Your task to perform on an android device: change the upload size in google photos Image 0: 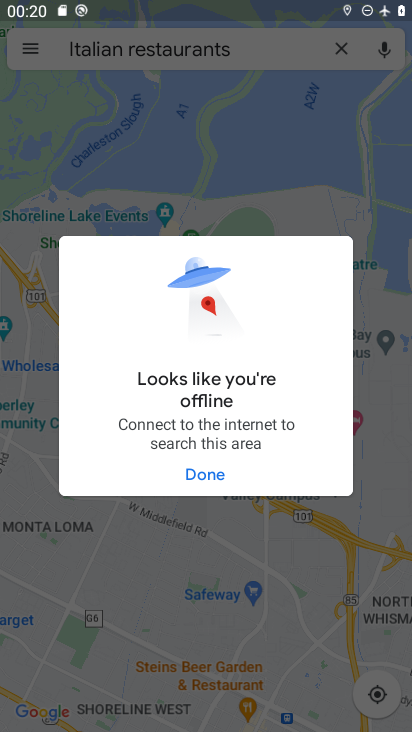
Step 0: press home button
Your task to perform on an android device: change the upload size in google photos Image 1: 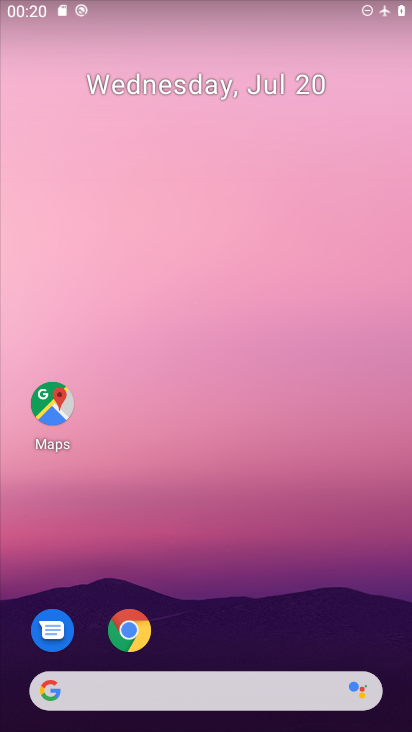
Step 1: drag from (216, 621) to (171, 53)
Your task to perform on an android device: change the upload size in google photos Image 2: 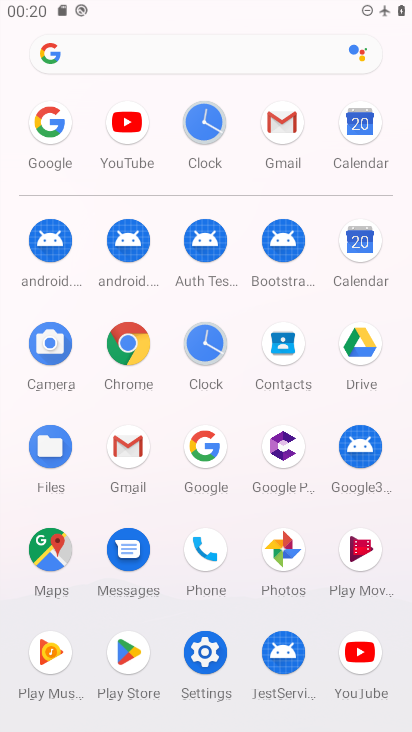
Step 2: click (278, 559)
Your task to perform on an android device: change the upload size in google photos Image 3: 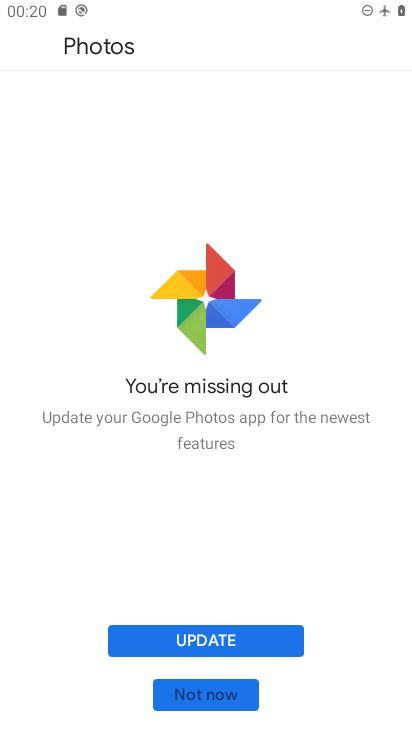
Step 3: click (236, 694)
Your task to perform on an android device: change the upload size in google photos Image 4: 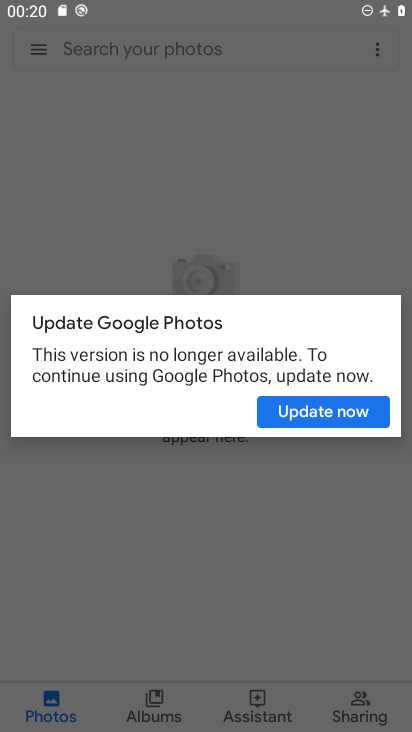
Step 4: click (274, 490)
Your task to perform on an android device: change the upload size in google photos Image 5: 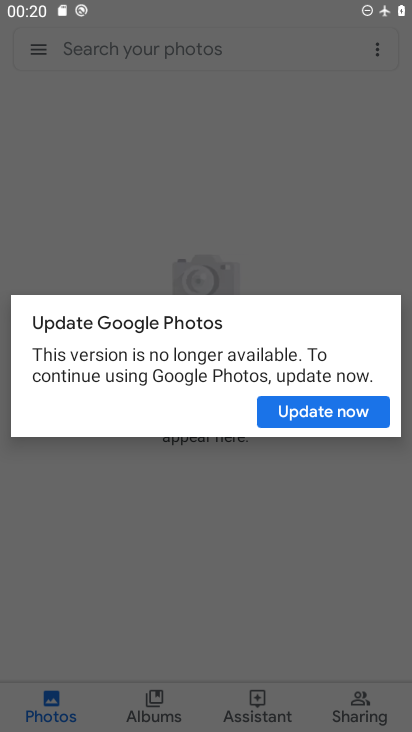
Step 5: click (318, 418)
Your task to perform on an android device: change the upload size in google photos Image 6: 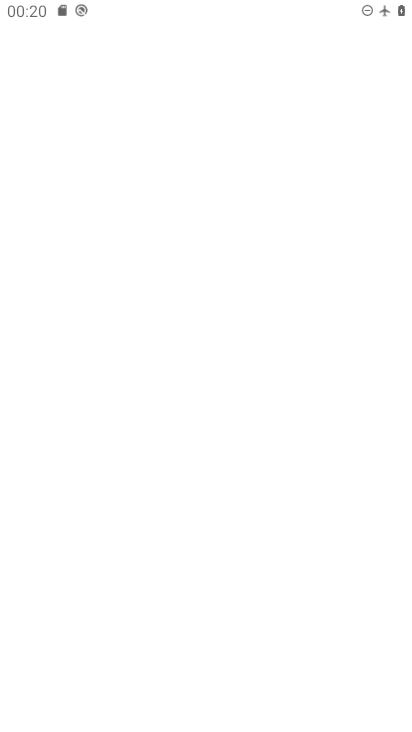
Step 6: press back button
Your task to perform on an android device: change the upload size in google photos Image 7: 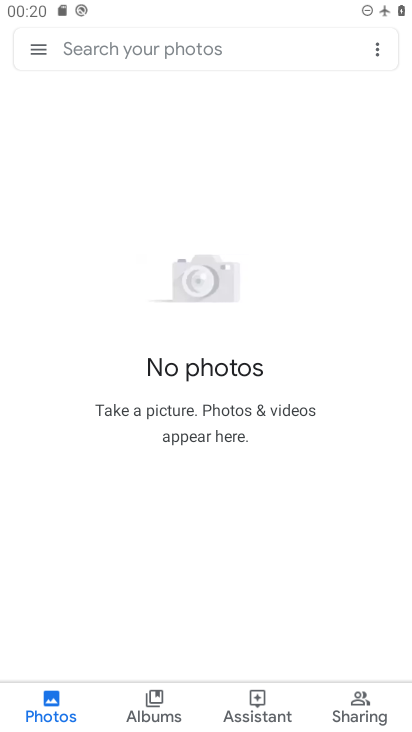
Step 7: click (36, 46)
Your task to perform on an android device: change the upload size in google photos Image 8: 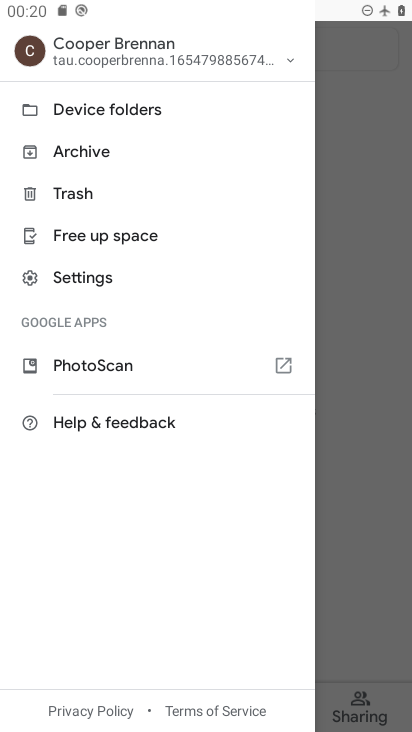
Step 8: click (92, 277)
Your task to perform on an android device: change the upload size in google photos Image 9: 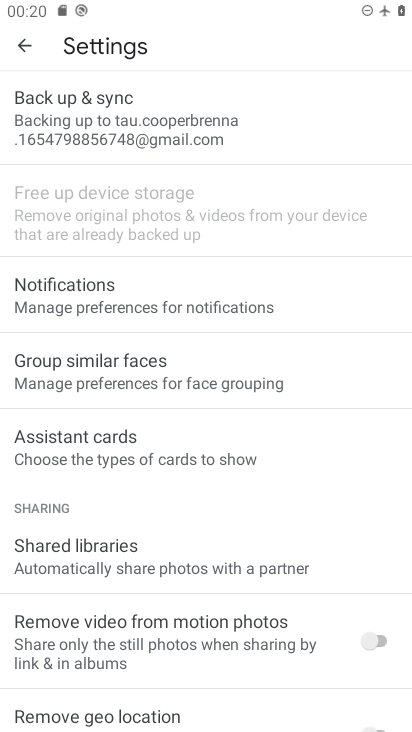
Step 9: click (111, 124)
Your task to perform on an android device: change the upload size in google photos Image 10: 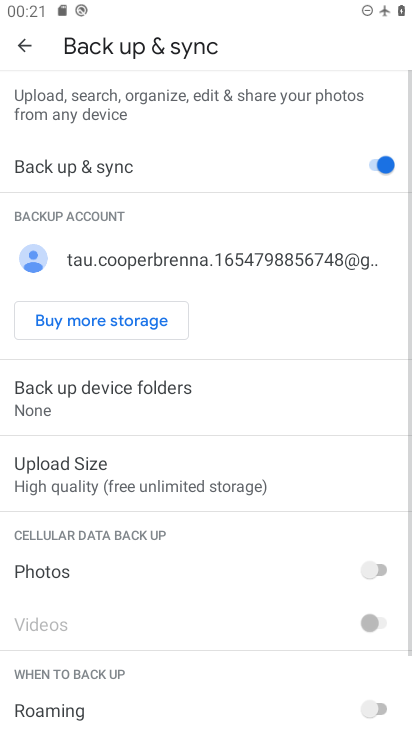
Step 10: click (161, 493)
Your task to perform on an android device: change the upload size in google photos Image 11: 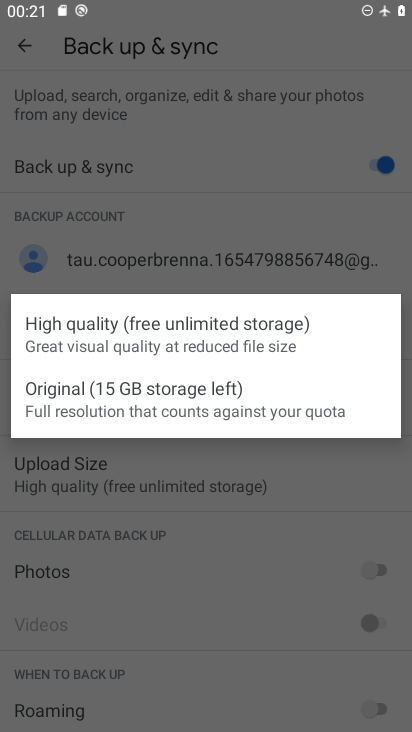
Step 11: click (191, 407)
Your task to perform on an android device: change the upload size in google photos Image 12: 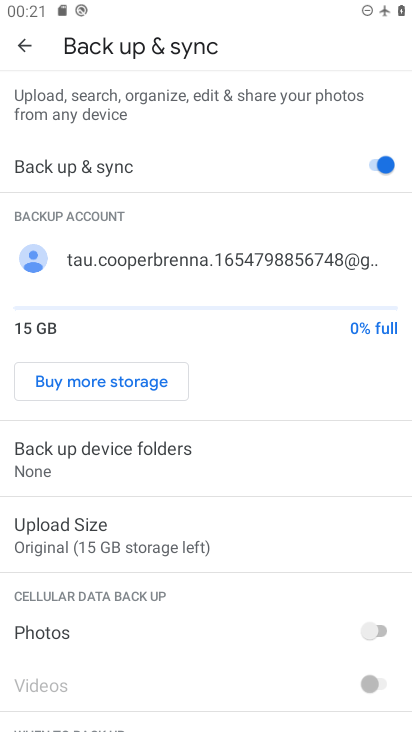
Step 12: task complete